Your task to perform on an android device: Open Yahoo.com Image 0: 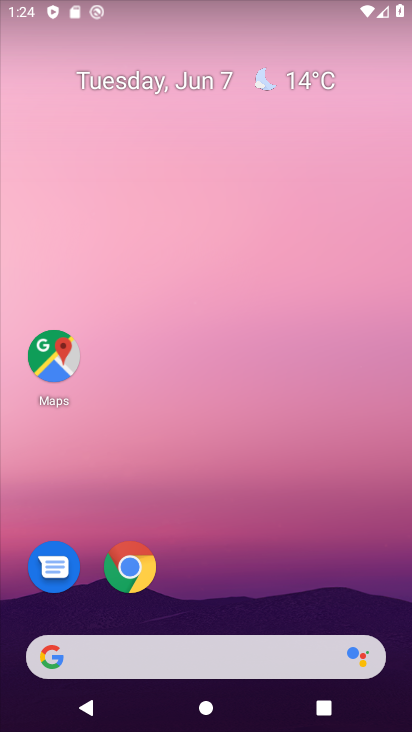
Step 0: drag from (322, 555) to (348, 60)
Your task to perform on an android device: Open Yahoo.com Image 1: 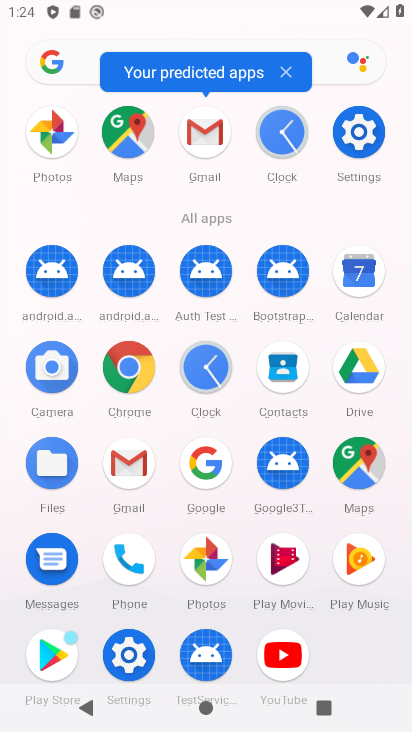
Step 1: click (141, 367)
Your task to perform on an android device: Open Yahoo.com Image 2: 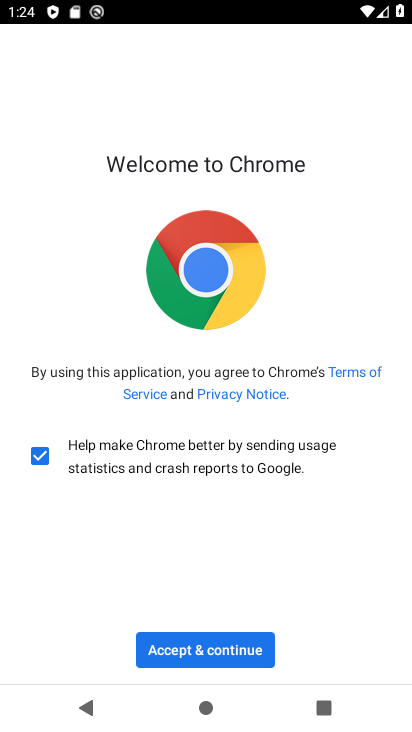
Step 2: click (192, 655)
Your task to perform on an android device: Open Yahoo.com Image 3: 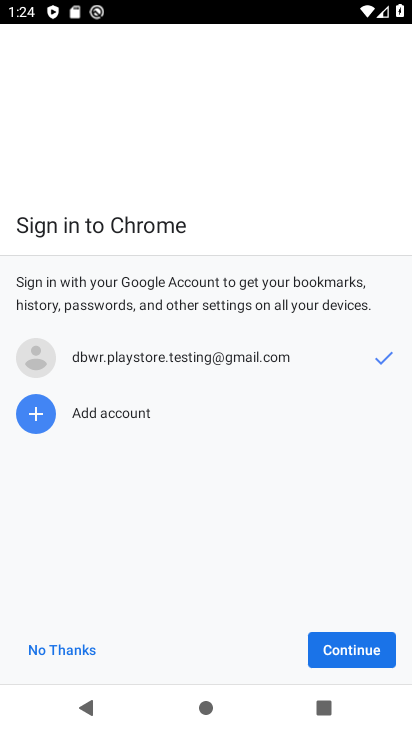
Step 3: click (57, 650)
Your task to perform on an android device: Open Yahoo.com Image 4: 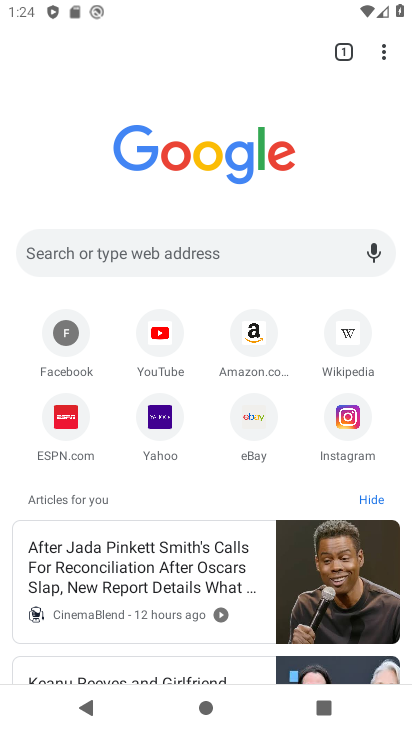
Step 4: click (173, 433)
Your task to perform on an android device: Open Yahoo.com Image 5: 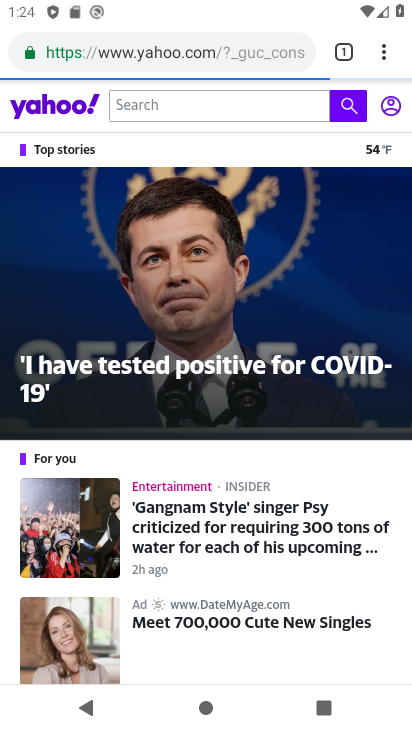
Step 5: task complete